Your task to perform on an android device: open a bookmark in the chrome app Image 0: 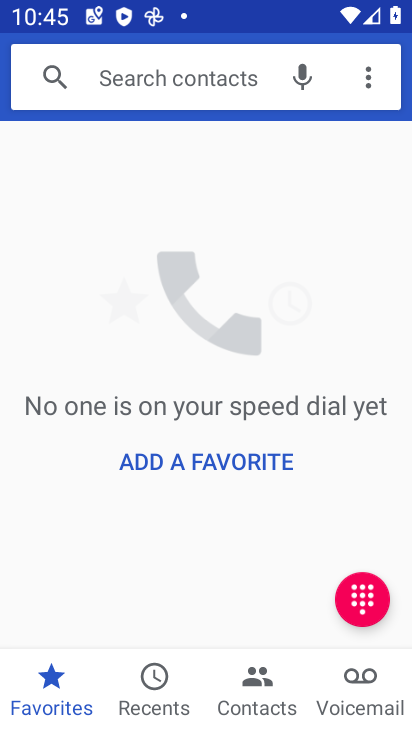
Step 0: press home button
Your task to perform on an android device: open a bookmark in the chrome app Image 1: 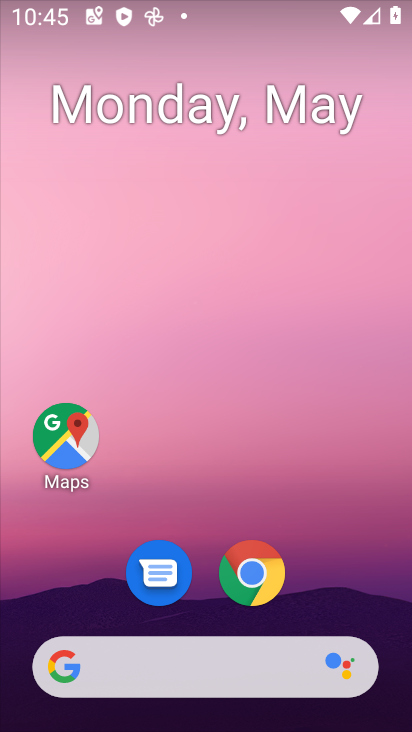
Step 1: click (264, 570)
Your task to perform on an android device: open a bookmark in the chrome app Image 2: 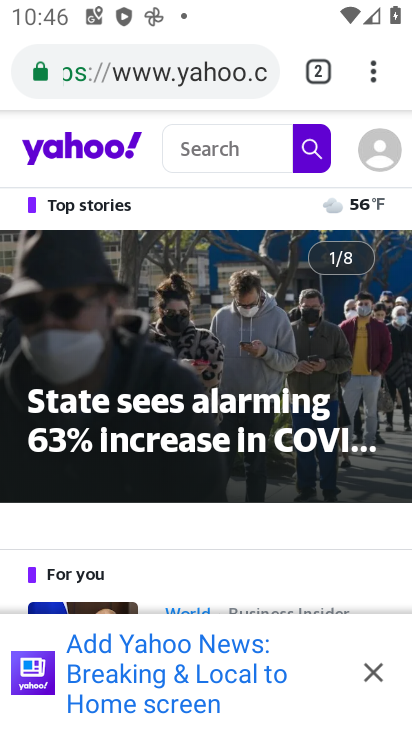
Step 2: click (377, 65)
Your task to perform on an android device: open a bookmark in the chrome app Image 3: 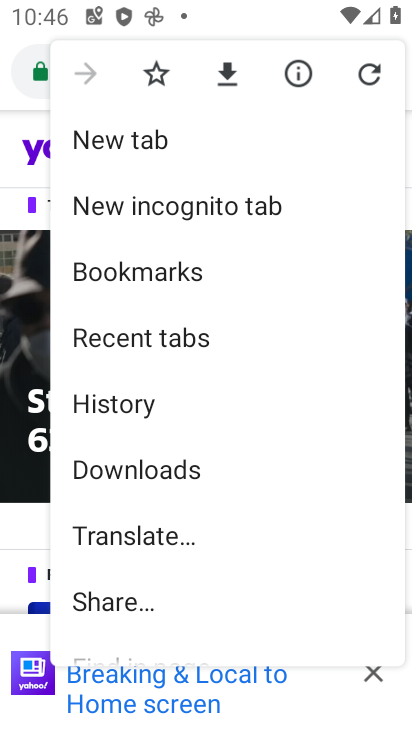
Step 3: click (180, 255)
Your task to perform on an android device: open a bookmark in the chrome app Image 4: 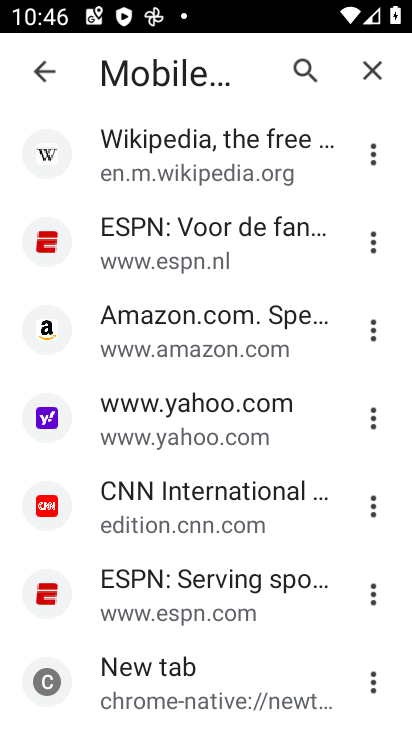
Step 4: click (207, 177)
Your task to perform on an android device: open a bookmark in the chrome app Image 5: 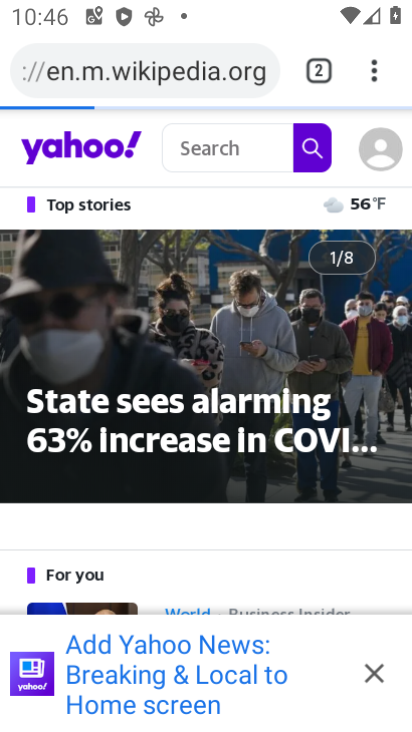
Step 5: task complete